Your task to perform on an android device: open a new tab in the chrome app Image 0: 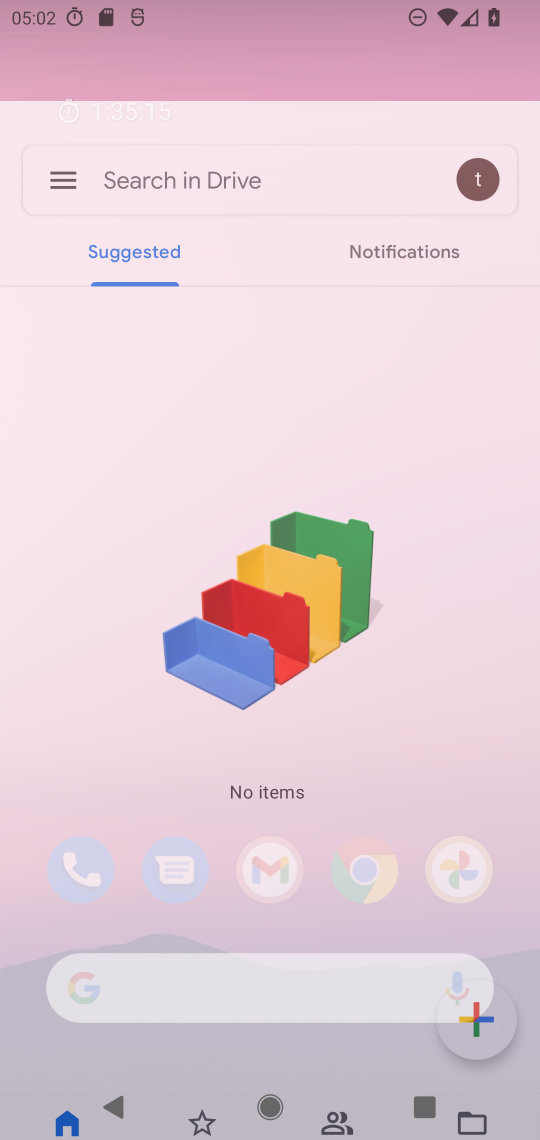
Step 0: press home button
Your task to perform on an android device: open a new tab in the chrome app Image 1: 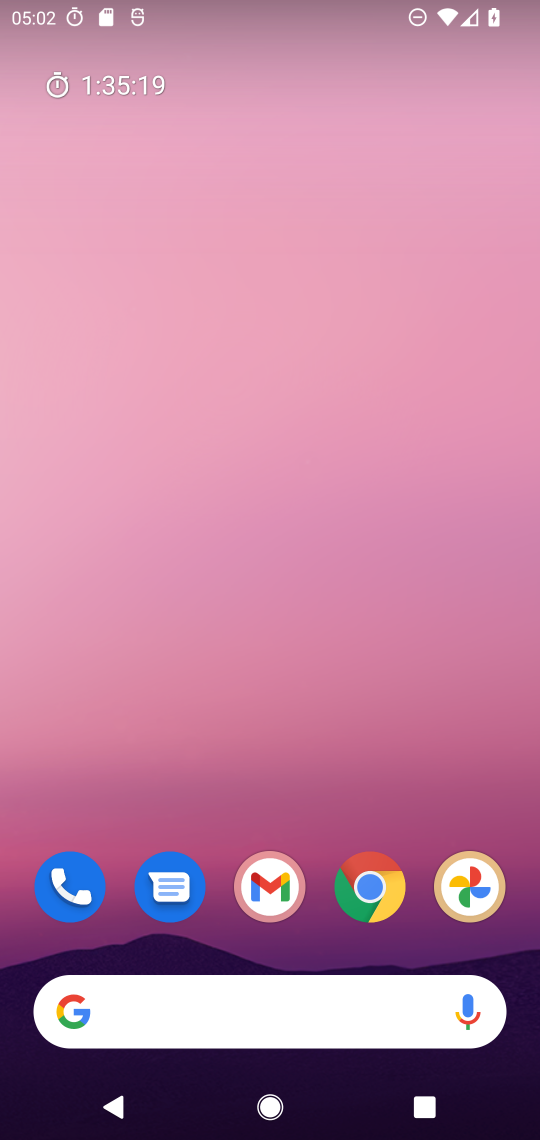
Step 1: drag from (402, 700) to (402, 241)
Your task to perform on an android device: open a new tab in the chrome app Image 2: 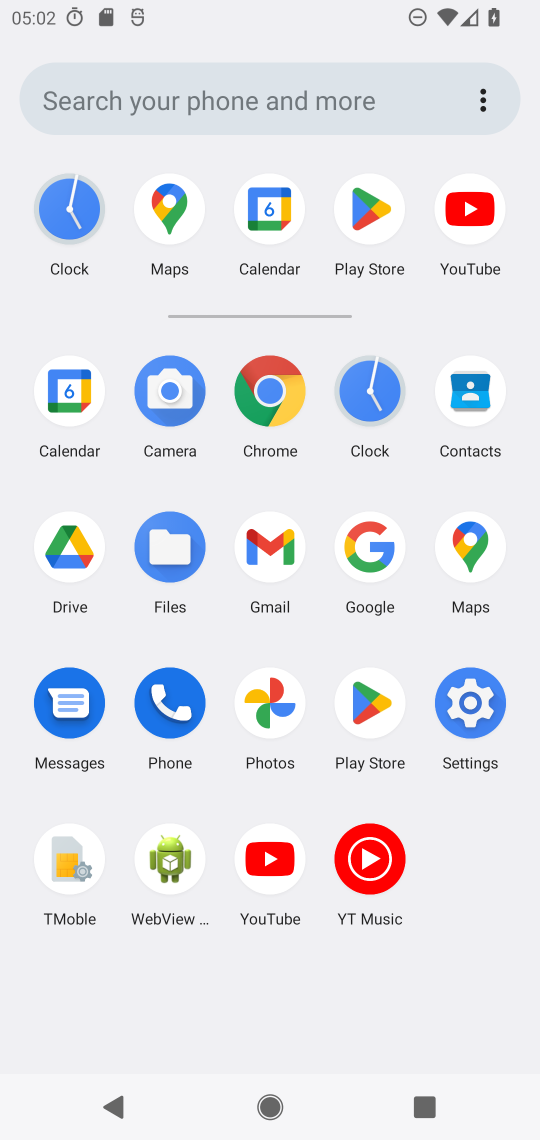
Step 2: click (288, 402)
Your task to perform on an android device: open a new tab in the chrome app Image 3: 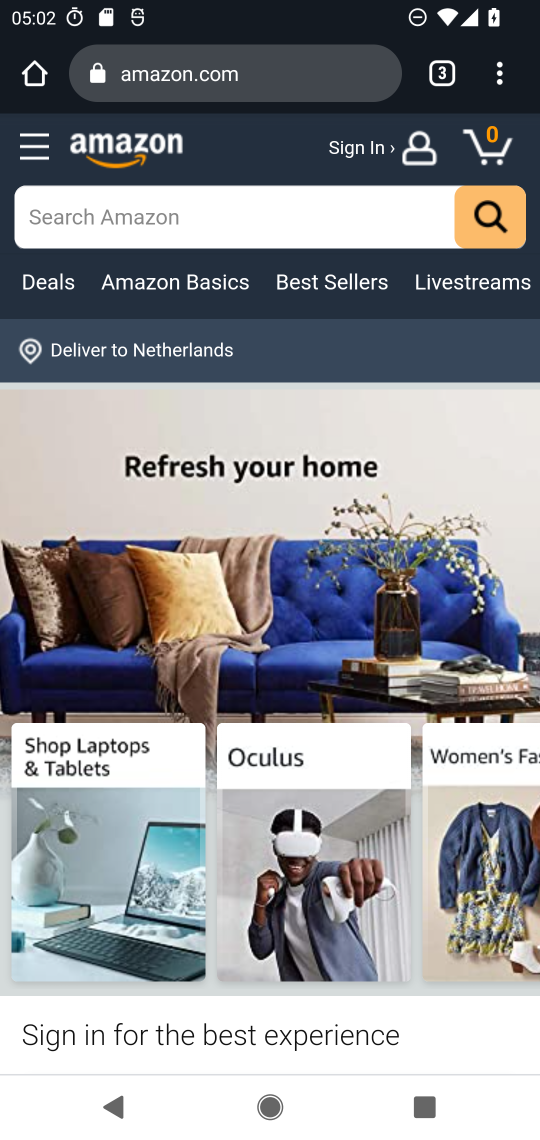
Step 3: click (500, 74)
Your task to perform on an android device: open a new tab in the chrome app Image 4: 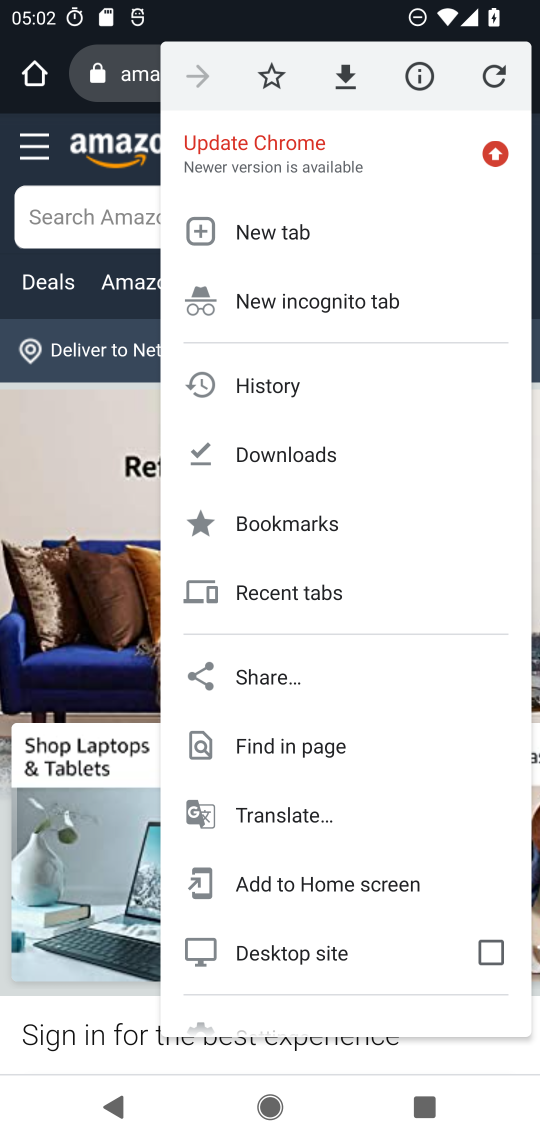
Step 4: click (284, 241)
Your task to perform on an android device: open a new tab in the chrome app Image 5: 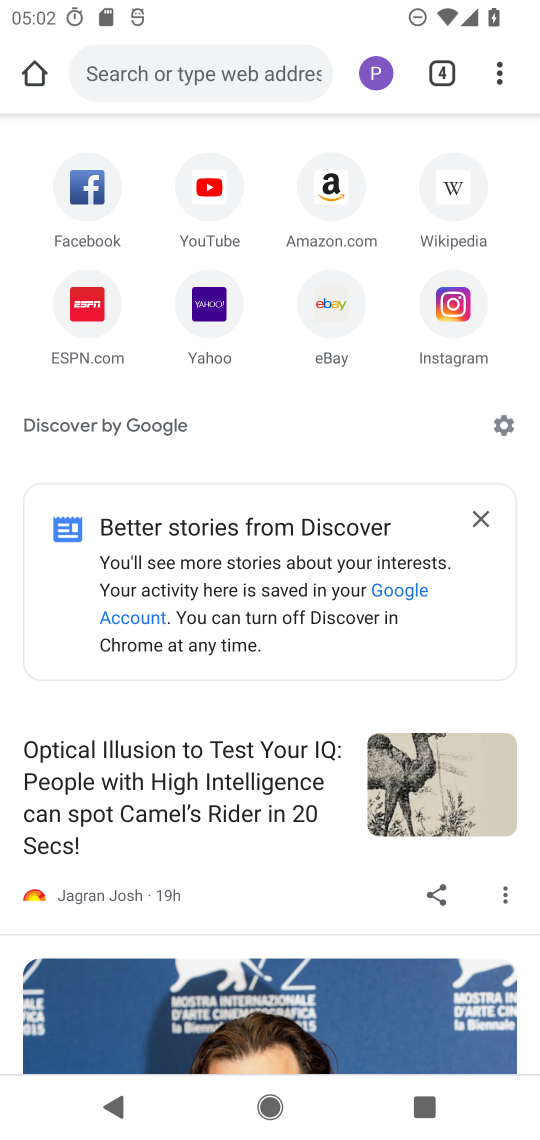
Step 5: task complete